Your task to perform on an android device: change the upload size in google photos Image 0: 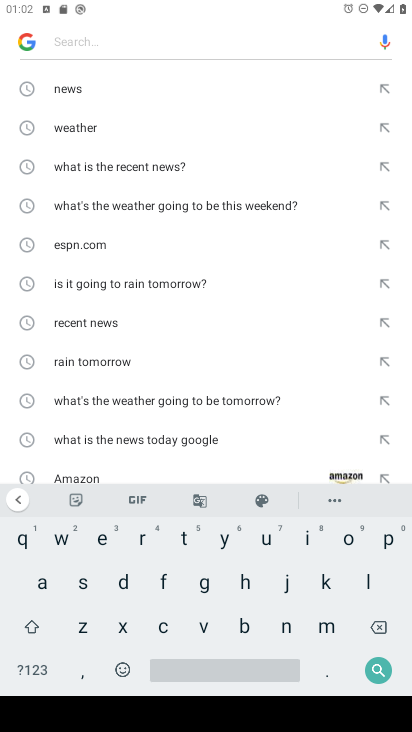
Step 0: press home button
Your task to perform on an android device: change the upload size in google photos Image 1: 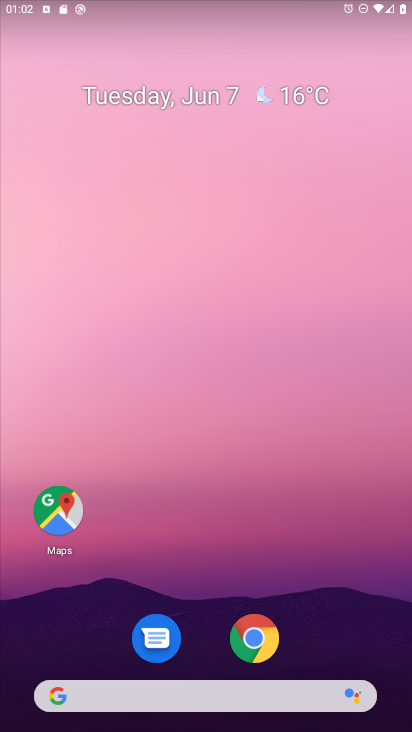
Step 1: drag from (191, 678) to (220, 171)
Your task to perform on an android device: change the upload size in google photos Image 2: 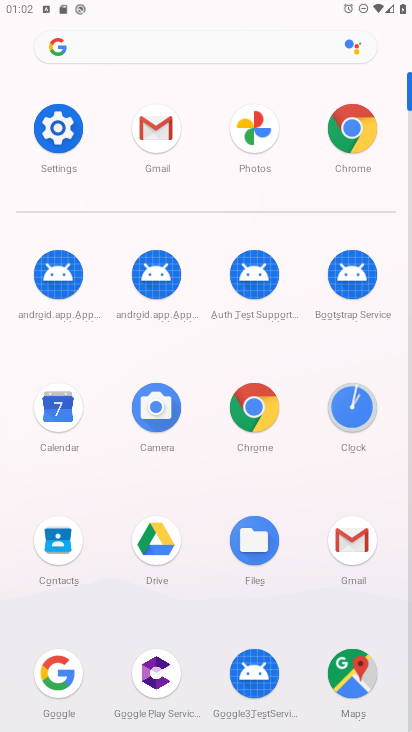
Step 2: drag from (191, 634) to (209, 461)
Your task to perform on an android device: change the upload size in google photos Image 3: 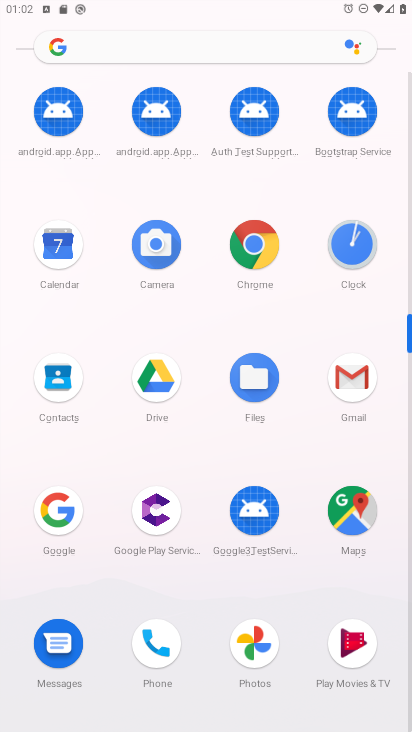
Step 3: click (249, 643)
Your task to perform on an android device: change the upload size in google photos Image 4: 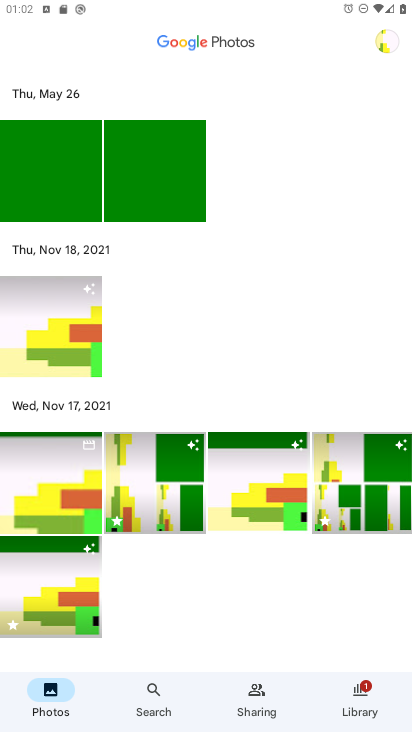
Step 4: click (375, 44)
Your task to perform on an android device: change the upload size in google photos Image 5: 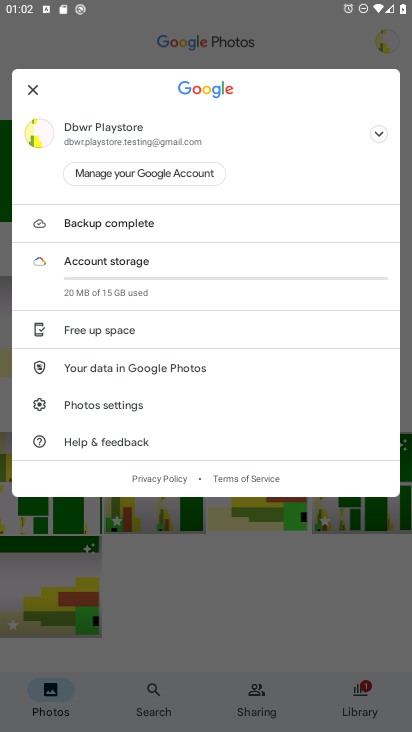
Step 5: click (132, 410)
Your task to perform on an android device: change the upload size in google photos Image 6: 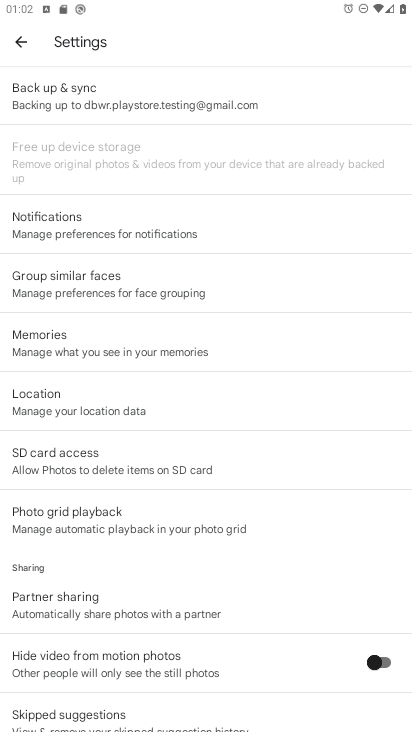
Step 6: click (92, 102)
Your task to perform on an android device: change the upload size in google photos Image 7: 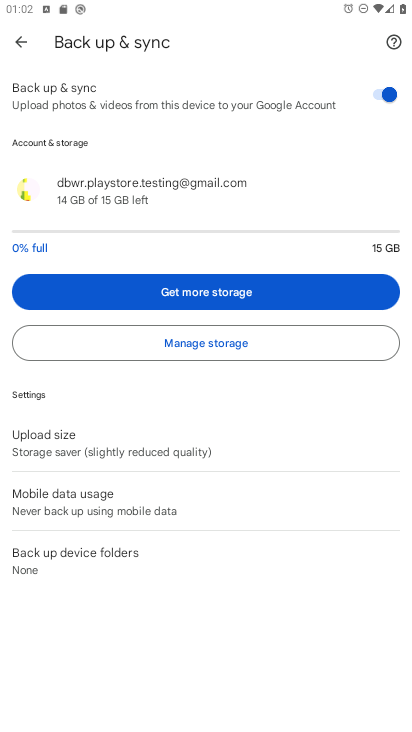
Step 7: click (93, 431)
Your task to perform on an android device: change the upload size in google photos Image 8: 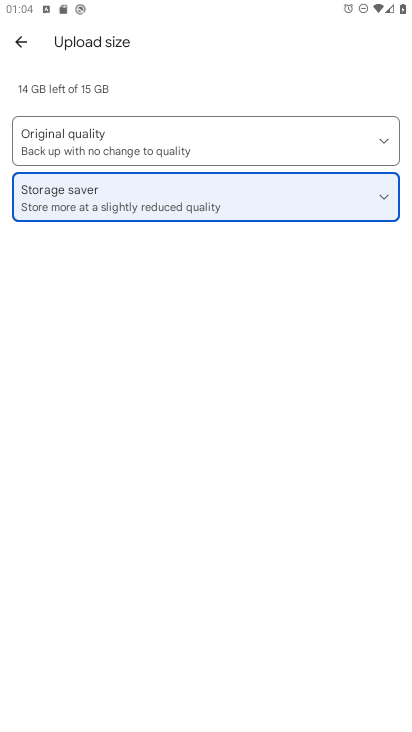
Step 8: task complete